Your task to perform on an android device: delete browsing data in the chrome app Image 0: 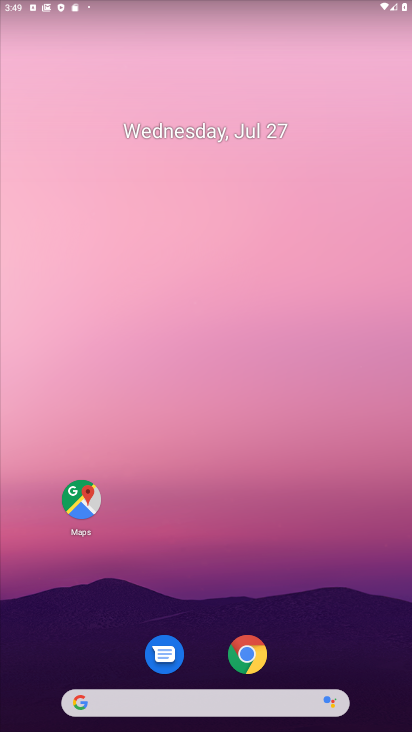
Step 0: click (239, 658)
Your task to perform on an android device: delete browsing data in the chrome app Image 1: 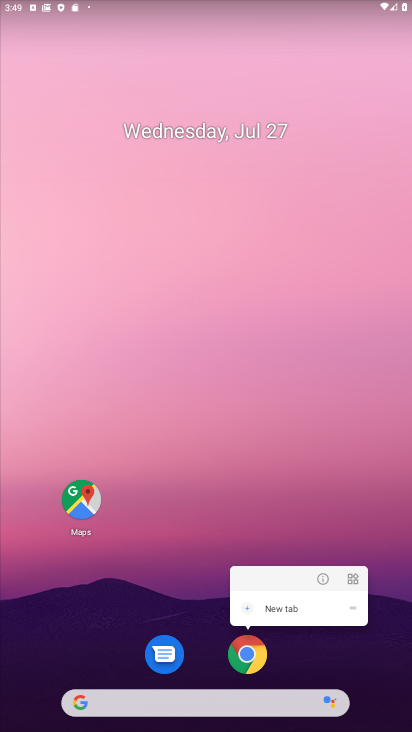
Step 1: click (239, 658)
Your task to perform on an android device: delete browsing data in the chrome app Image 2: 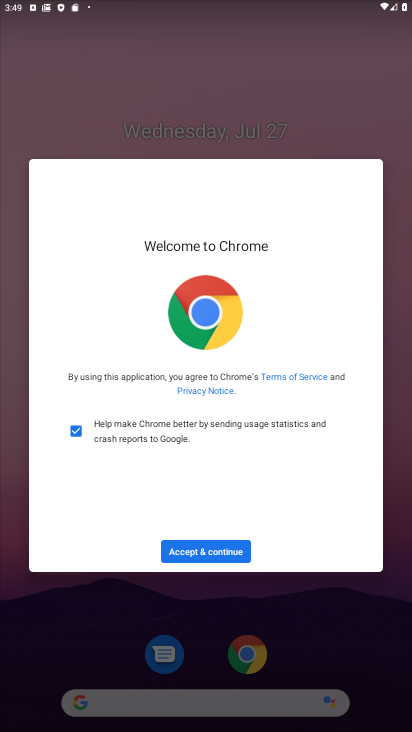
Step 2: click (218, 543)
Your task to perform on an android device: delete browsing data in the chrome app Image 3: 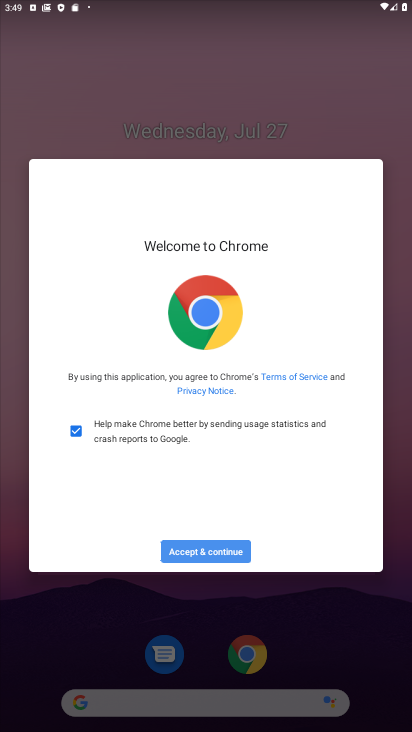
Step 3: click (218, 543)
Your task to perform on an android device: delete browsing data in the chrome app Image 4: 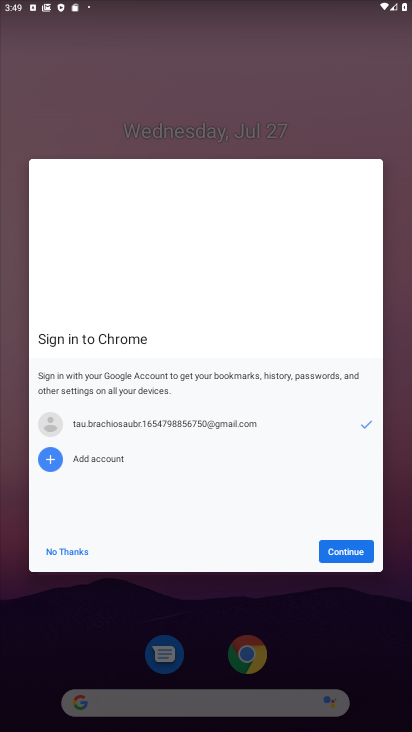
Step 4: click (340, 559)
Your task to perform on an android device: delete browsing data in the chrome app Image 5: 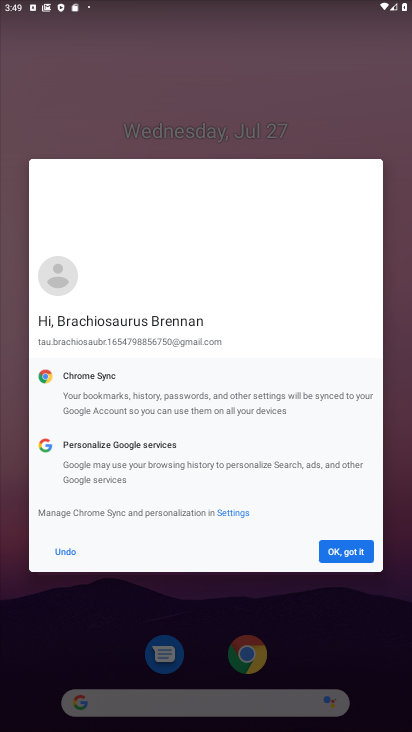
Step 5: click (339, 556)
Your task to perform on an android device: delete browsing data in the chrome app Image 6: 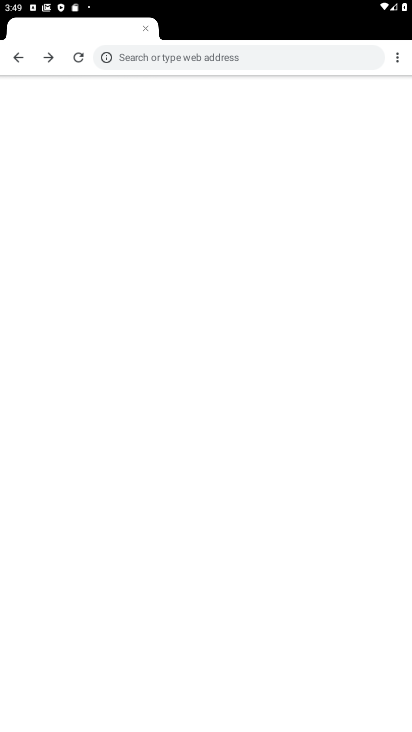
Step 6: click (396, 61)
Your task to perform on an android device: delete browsing data in the chrome app Image 7: 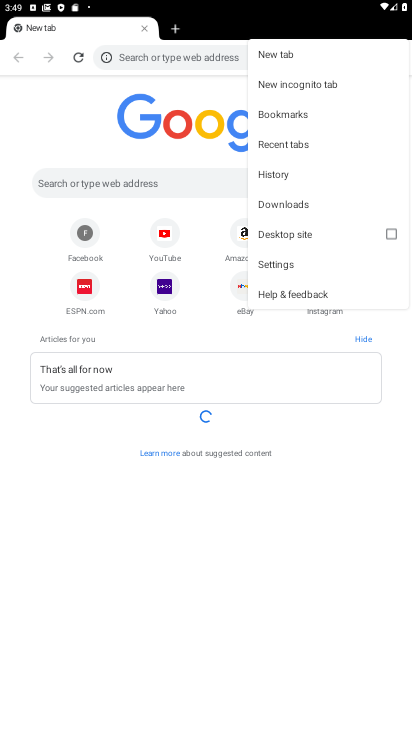
Step 7: click (283, 259)
Your task to perform on an android device: delete browsing data in the chrome app Image 8: 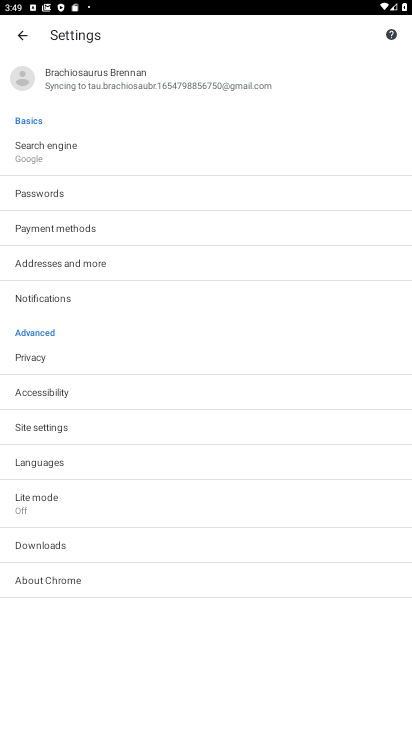
Step 8: click (54, 347)
Your task to perform on an android device: delete browsing data in the chrome app Image 9: 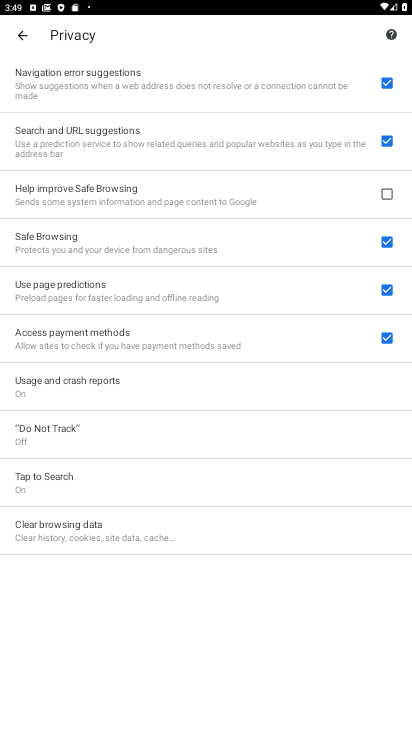
Step 9: click (107, 531)
Your task to perform on an android device: delete browsing data in the chrome app Image 10: 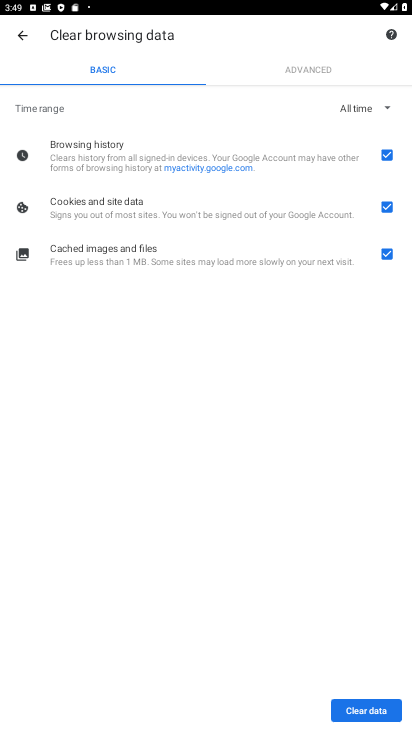
Step 10: click (348, 713)
Your task to perform on an android device: delete browsing data in the chrome app Image 11: 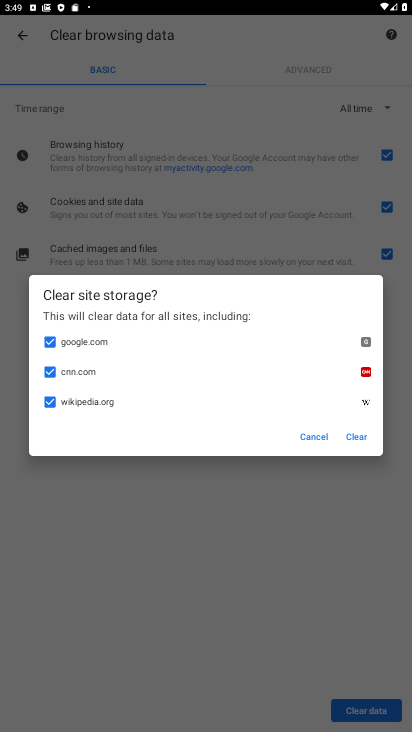
Step 11: click (362, 434)
Your task to perform on an android device: delete browsing data in the chrome app Image 12: 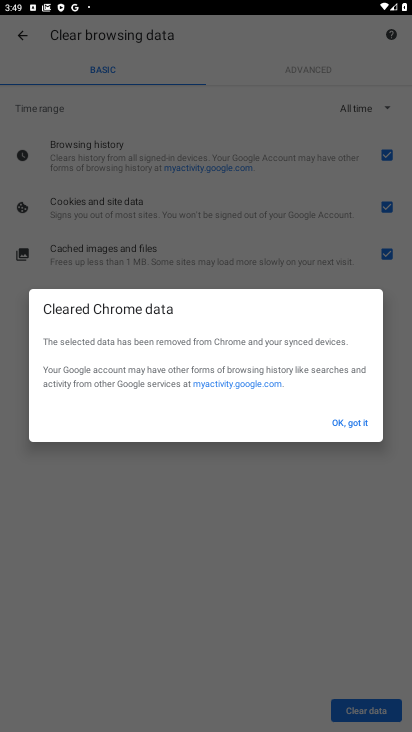
Step 12: click (346, 422)
Your task to perform on an android device: delete browsing data in the chrome app Image 13: 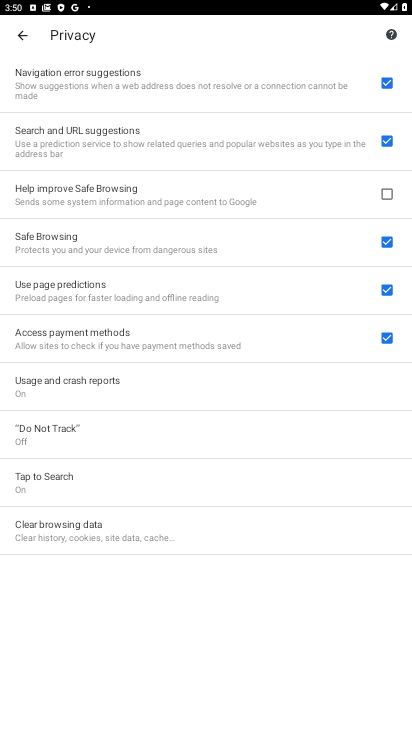
Step 13: task complete